Your task to perform on an android device: Go to CNN.com Image 0: 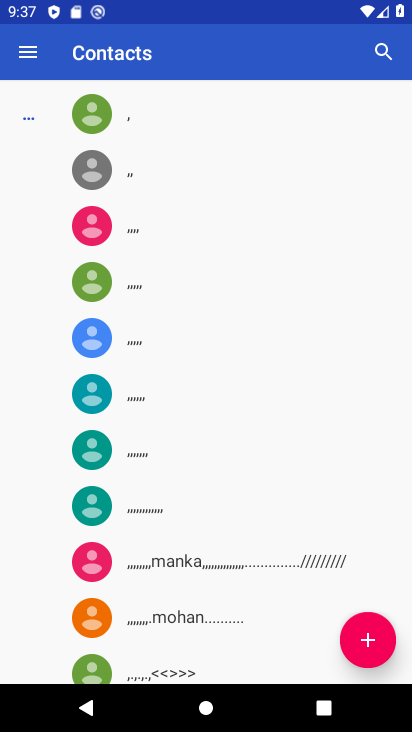
Step 0: press home button
Your task to perform on an android device: Go to CNN.com Image 1: 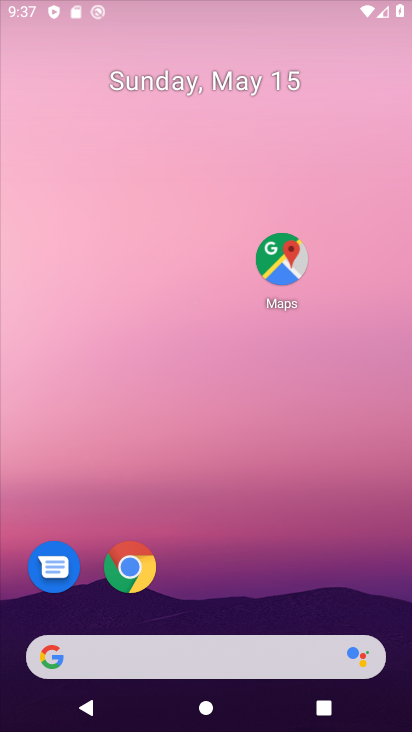
Step 1: drag from (236, 557) to (189, 0)
Your task to perform on an android device: Go to CNN.com Image 2: 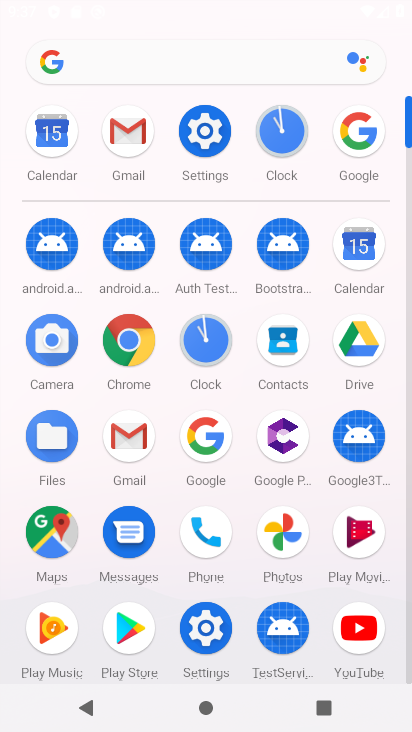
Step 2: click (209, 431)
Your task to perform on an android device: Go to CNN.com Image 3: 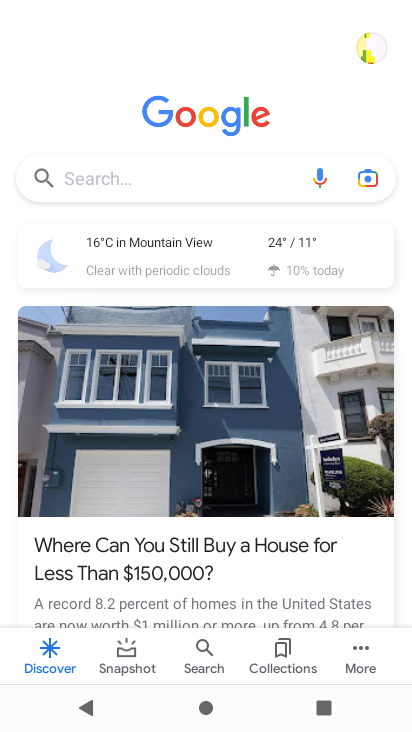
Step 3: click (171, 175)
Your task to perform on an android device: Go to CNN.com Image 4: 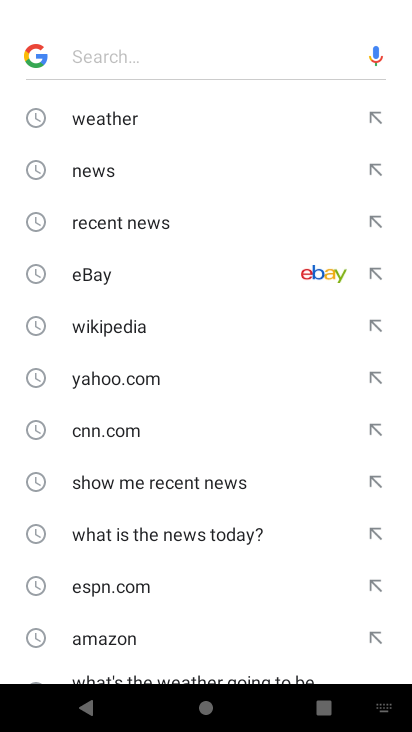
Step 4: drag from (193, 592) to (197, 262)
Your task to perform on an android device: Go to CNN.com Image 5: 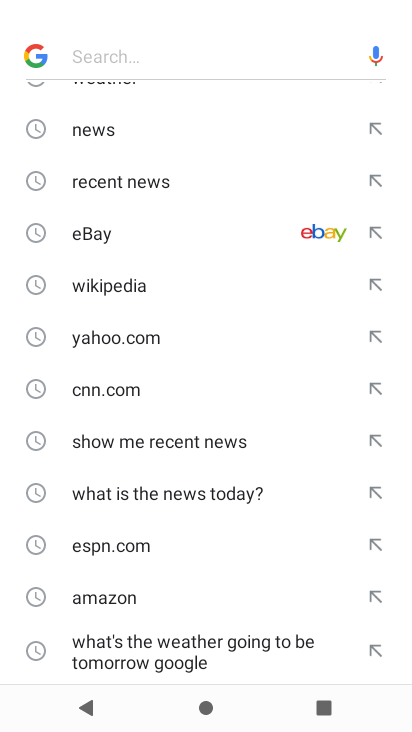
Step 5: click (116, 388)
Your task to perform on an android device: Go to CNN.com Image 6: 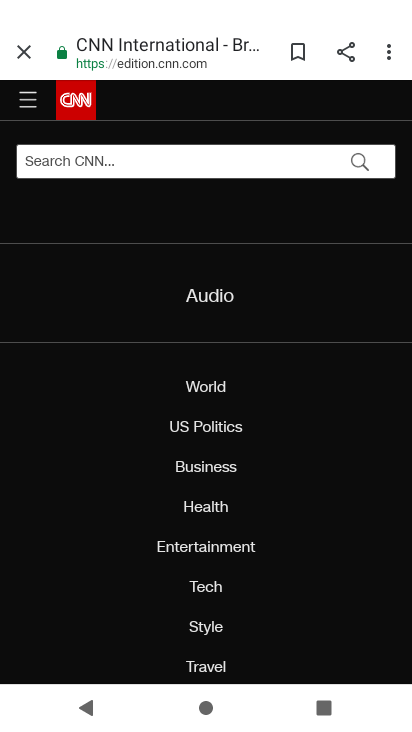
Step 6: task complete